Your task to perform on an android device: Open Chrome and go to settings Image 0: 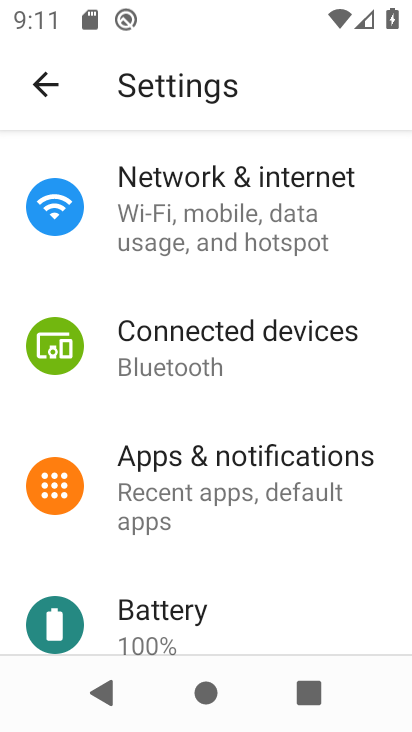
Step 0: press home button
Your task to perform on an android device: Open Chrome and go to settings Image 1: 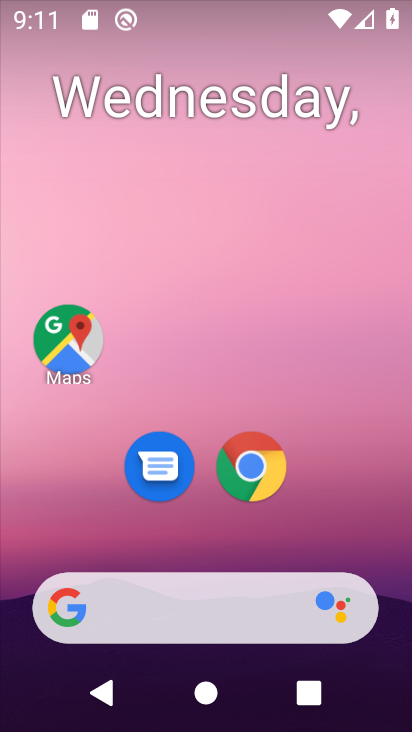
Step 1: click (256, 464)
Your task to perform on an android device: Open Chrome and go to settings Image 2: 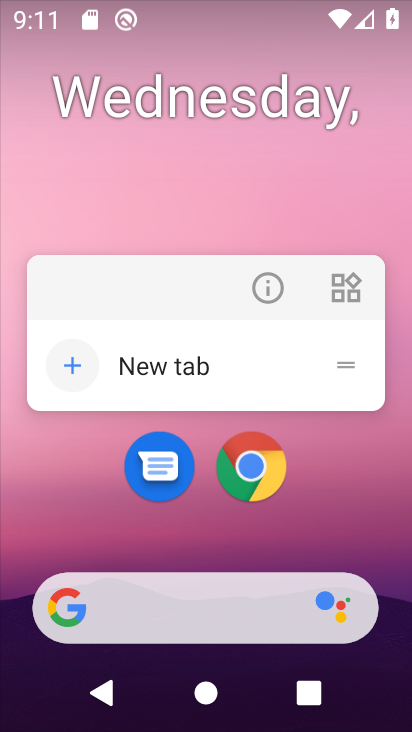
Step 2: click (253, 470)
Your task to perform on an android device: Open Chrome and go to settings Image 3: 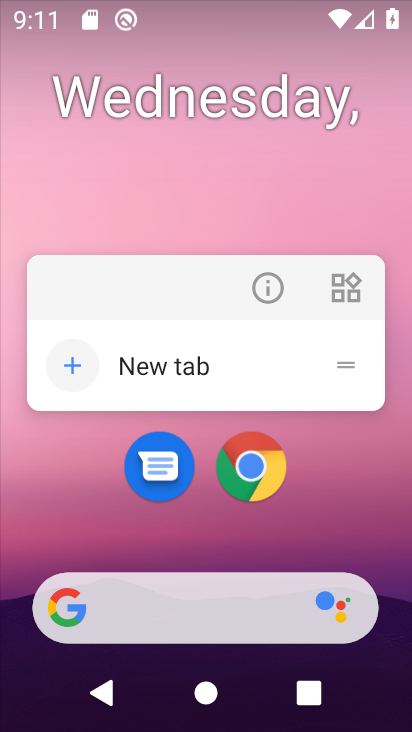
Step 3: click (253, 500)
Your task to perform on an android device: Open Chrome and go to settings Image 4: 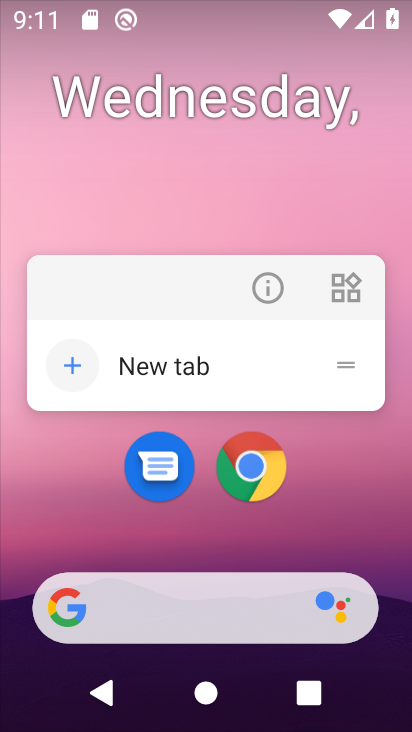
Step 4: click (254, 458)
Your task to perform on an android device: Open Chrome and go to settings Image 5: 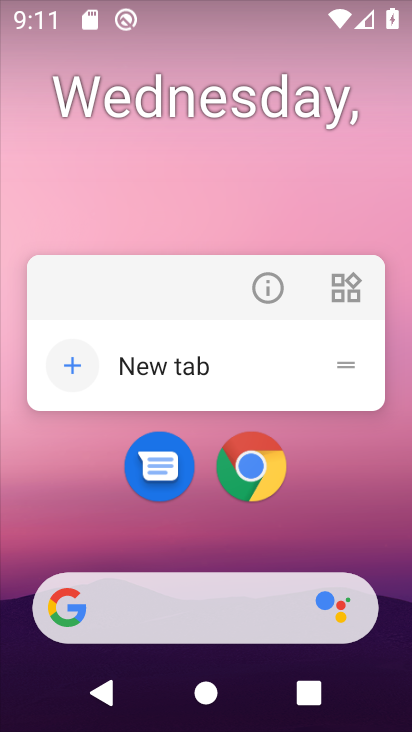
Step 5: click (275, 468)
Your task to perform on an android device: Open Chrome and go to settings Image 6: 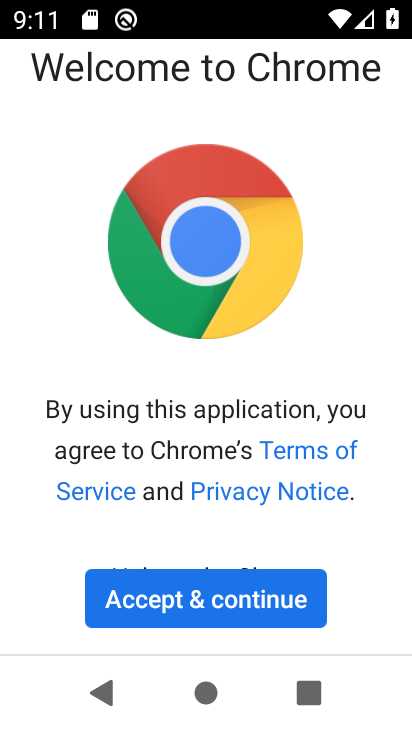
Step 6: click (261, 603)
Your task to perform on an android device: Open Chrome and go to settings Image 7: 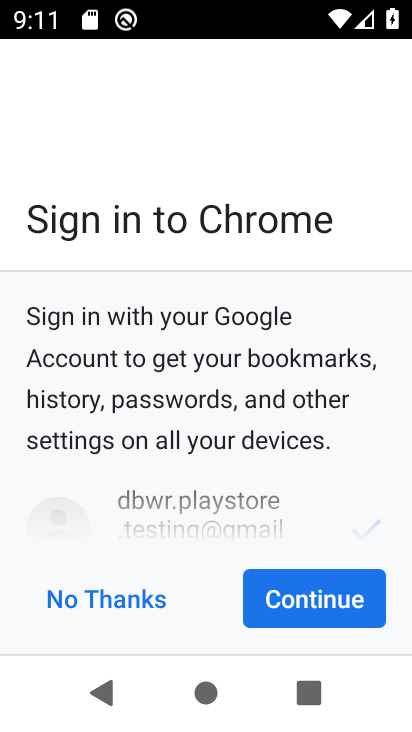
Step 7: click (277, 602)
Your task to perform on an android device: Open Chrome and go to settings Image 8: 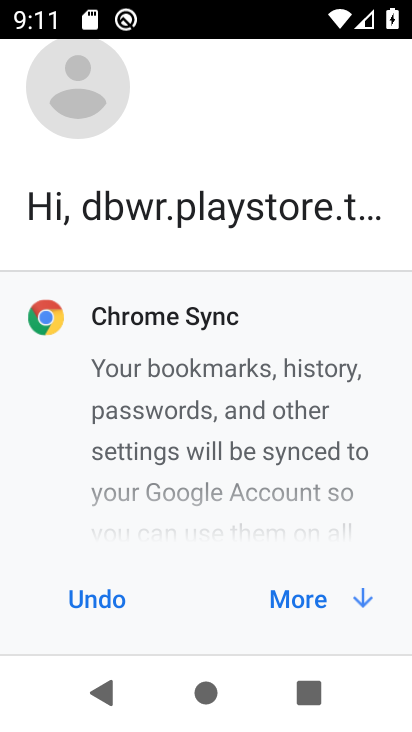
Step 8: click (278, 602)
Your task to perform on an android device: Open Chrome and go to settings Image 9: 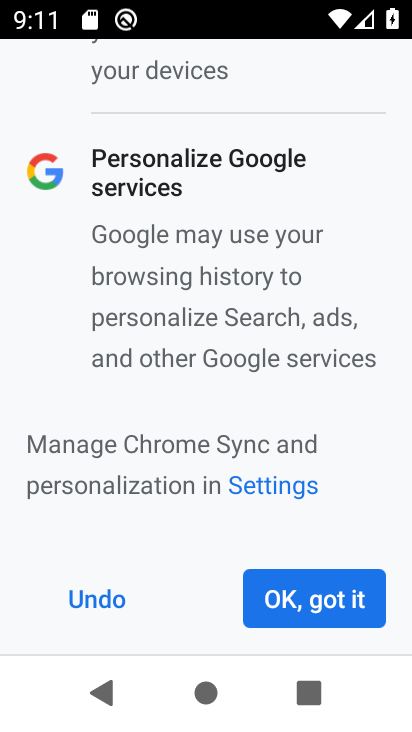
Step 9: click (278, 602)
Your task to perform on an android device: Open Chrome and go to settings Image 10: 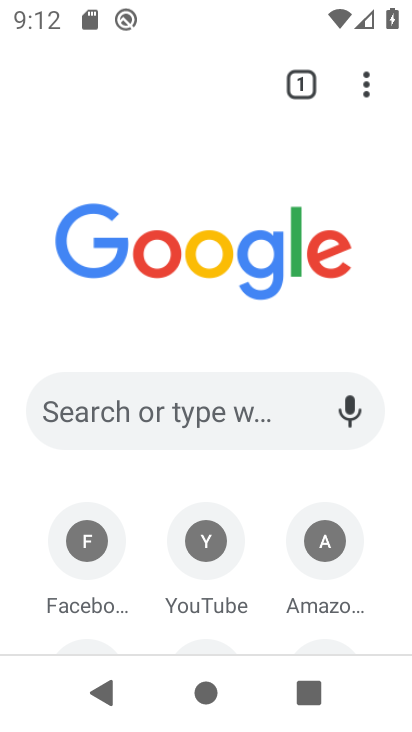
Step 10: task complete